Your task to perform on an android device: add a contact Image 0: 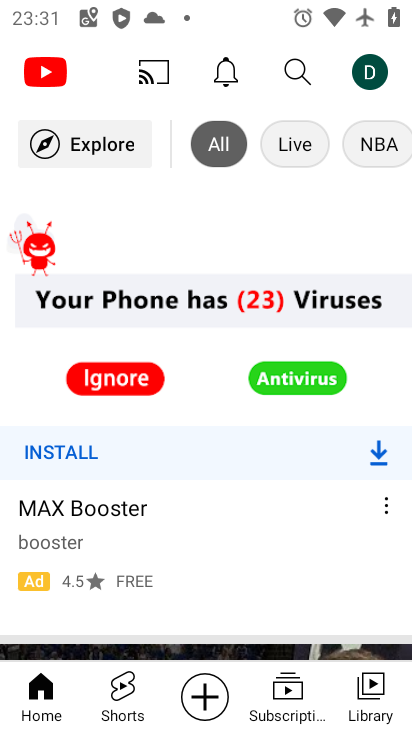
Step 0: press home button
Your task to perform on an android device: add a contact Image 1: 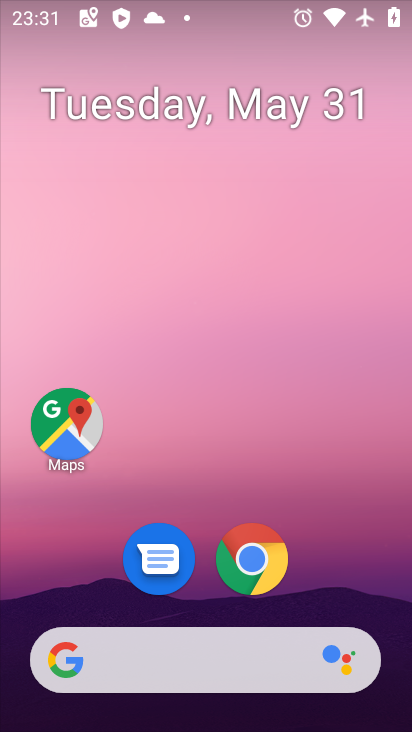
Step 1: drag from (327, 584) to (334, 38)
Your task to perform on an android device: add a contact Image 2: 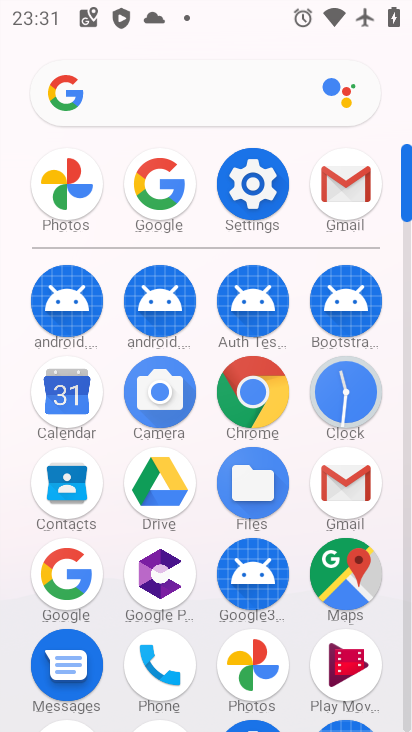
Step 2: click (63, 494)
Your task to perform on an android device: add a contact Image 3: 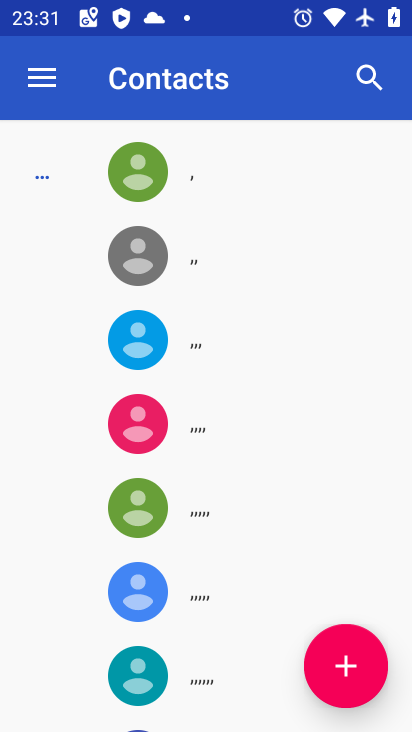
Step 3: click (356, 672)
Your task to perform on an android device: add a contact Image 4: 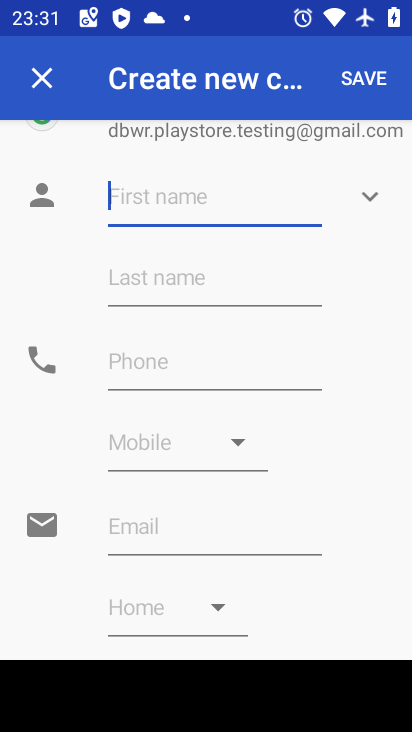
Step 4: type "htdhhj"
Your task to perform on an android device: add a contact Image 5: 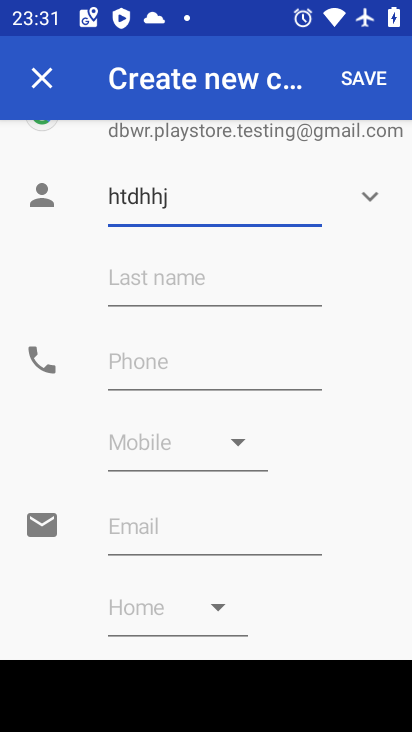
Step 5: click (358, 77)
Your task to perform on an android device: add a contact Image 6: 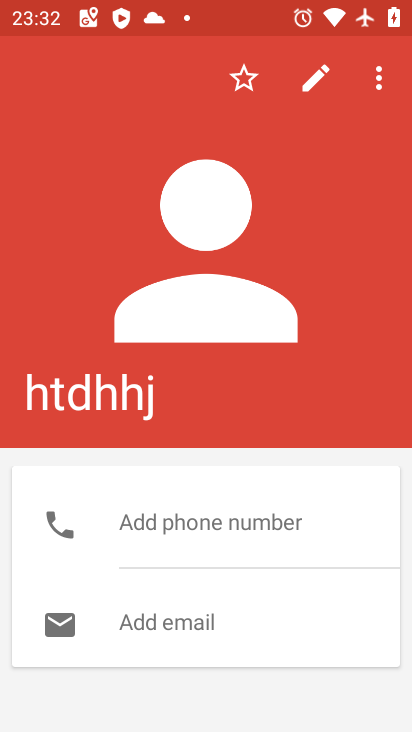
Step 6: task complete